Your task to perform on an android device: Search for a new highlighter Image 0: 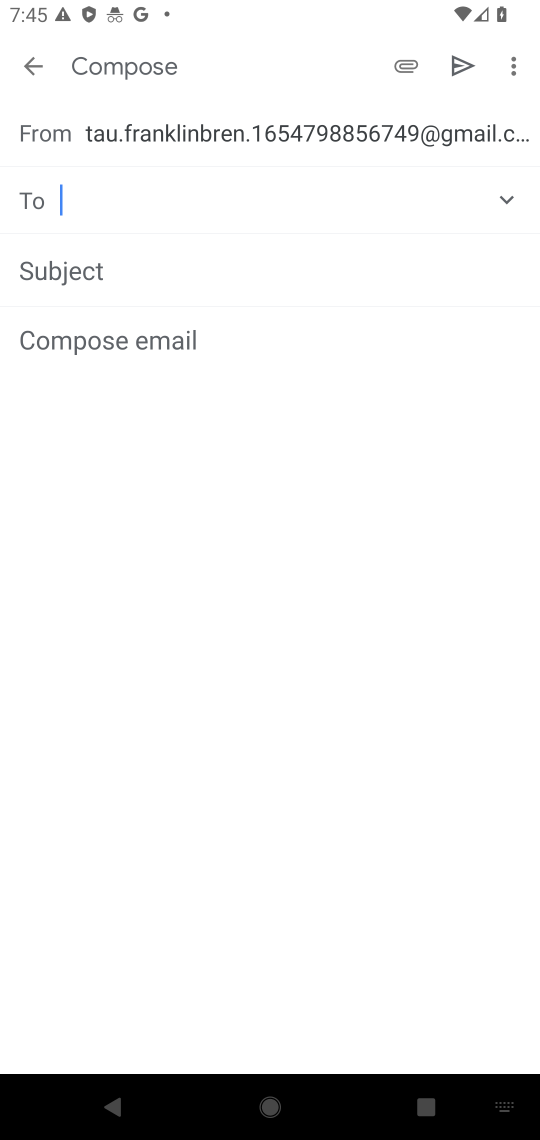
Step 0: press home button
Your task to perform on an android device: Search for a new highlighter Image 1: 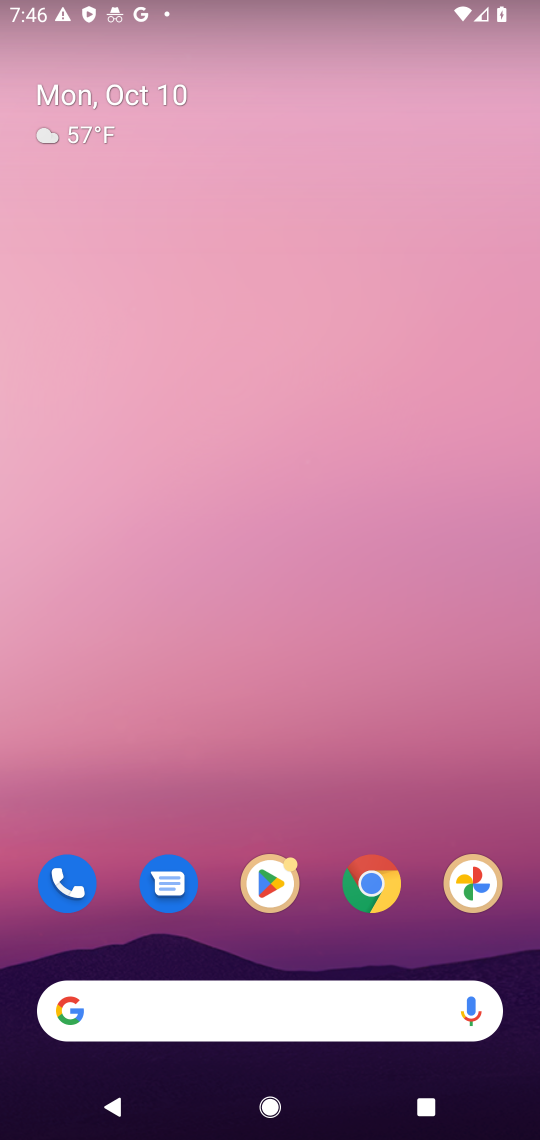
Step 1: drag from (192, 1029) to (331, 105)
Your task to perform on an android device: Search for a new highlighter Image 2: 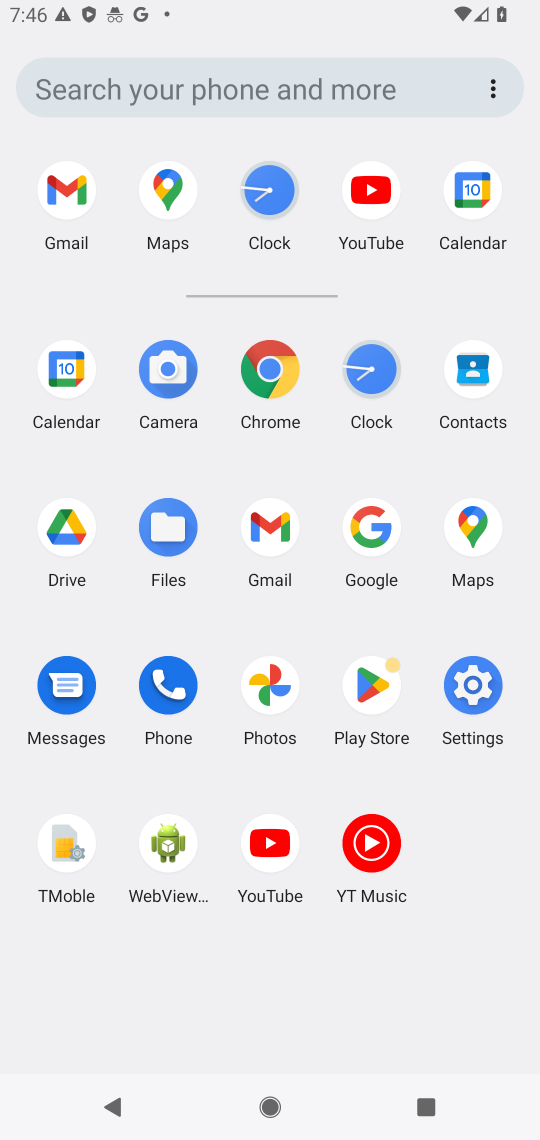
Step 2: click (392, 570)
Your task to perform on an android device: Search for a new highlighter Image 3: 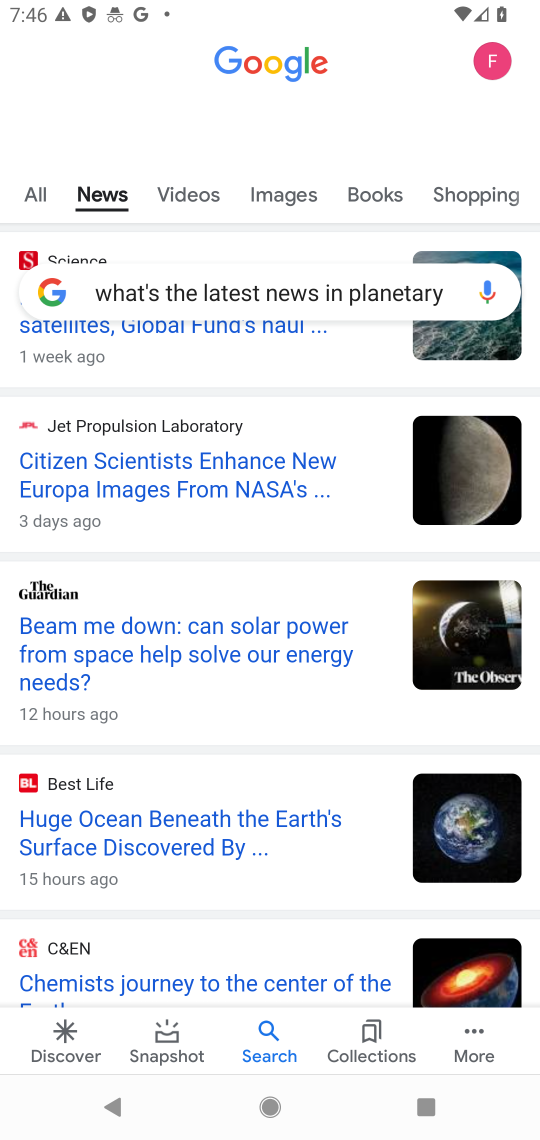
Step 3: click (374, 298)
Your task to perform on an android device: Search for a new highlighter Image 4: 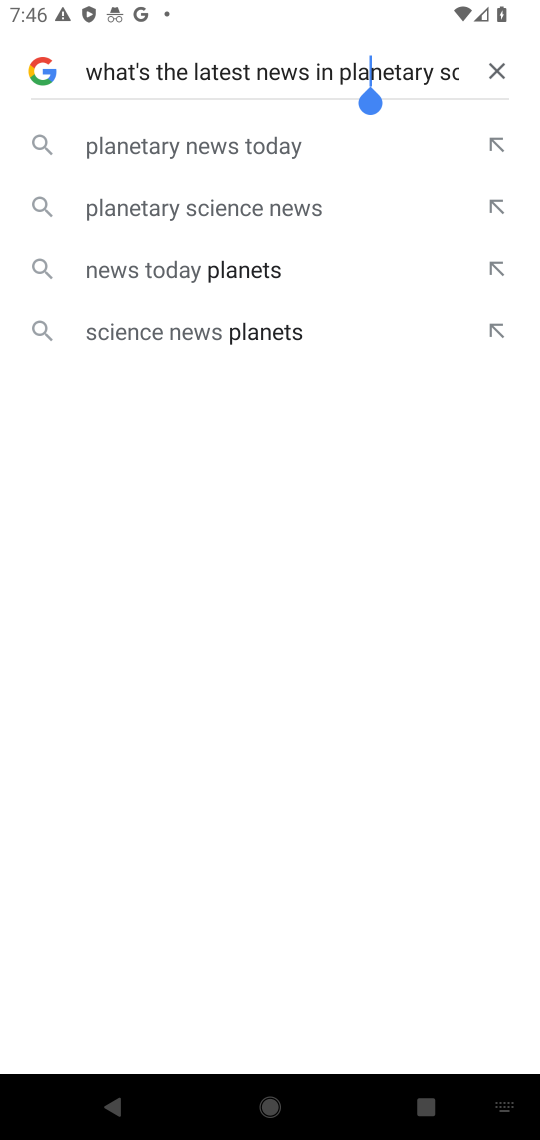
Step 4: click (510, 77)
Your task to perform on an android device: Search for a new highlighter Image 5: 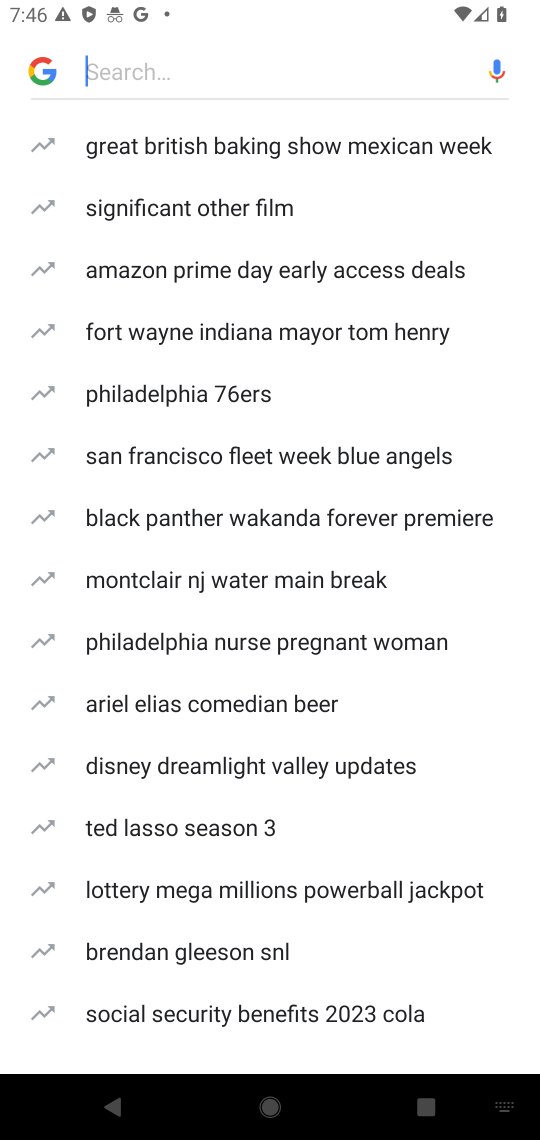
Step 5: type "new highlighter"
Your task to perform on an android device: Search for a new highlighter Image 6: 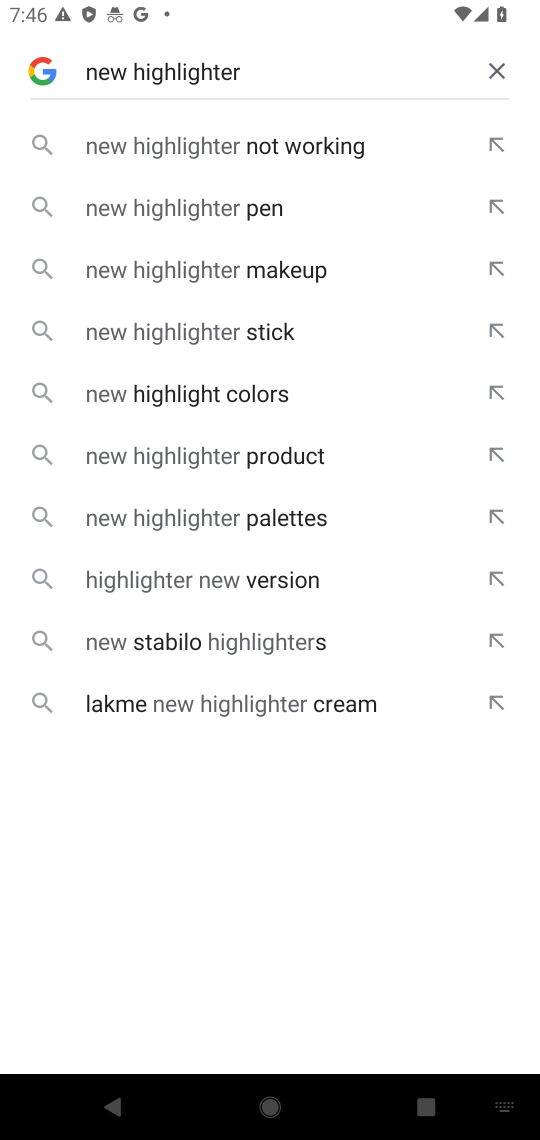
Step 6: click (253, 192)
Your task to perform on an android device: Search for a new highlighter Image 7: 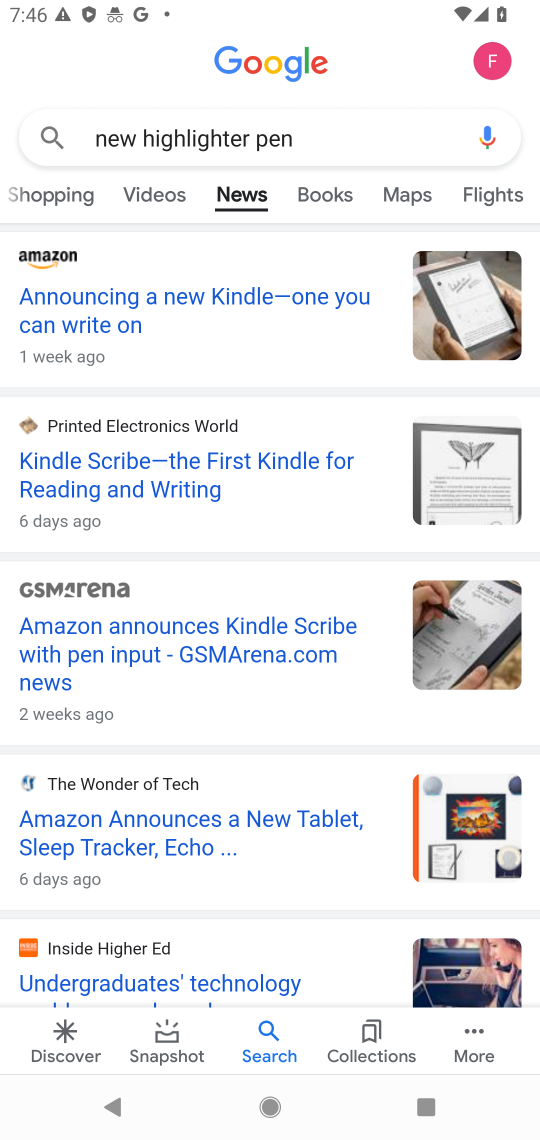
Step 7: click (89, 191)
Your task to perform on an android device: Search for a new highlighter Image 8: 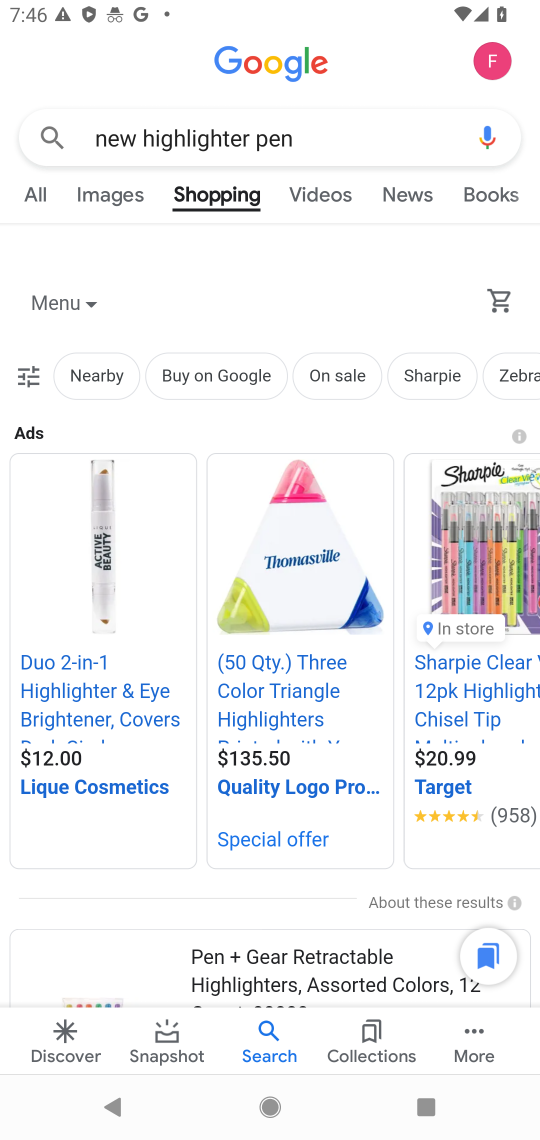
Step 8: task complete